Your task to perform on an android device: turn off smart reply in the gmail app Image 0: 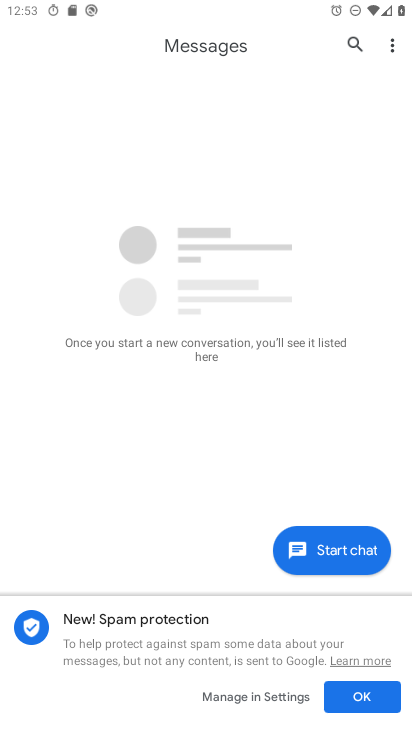
Step 0: press home button
Your task to perform on an android device: turn off smart reply in the gmail app Image 1: 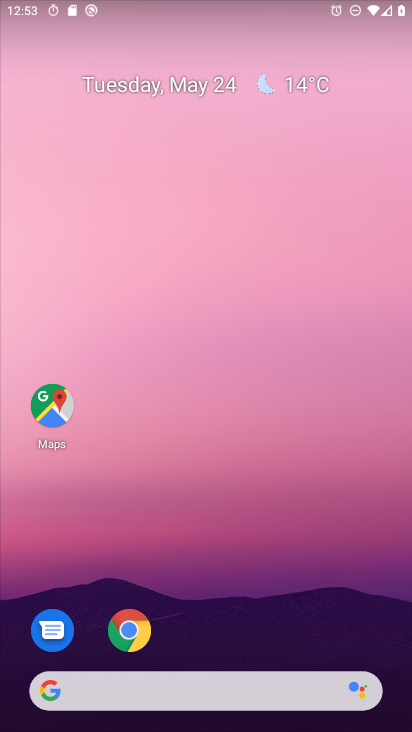
Step 1: drag from (310, 598) to (307, 102)
Your task to perform on an android device: turn off smart reply in the gmail app Image 2: 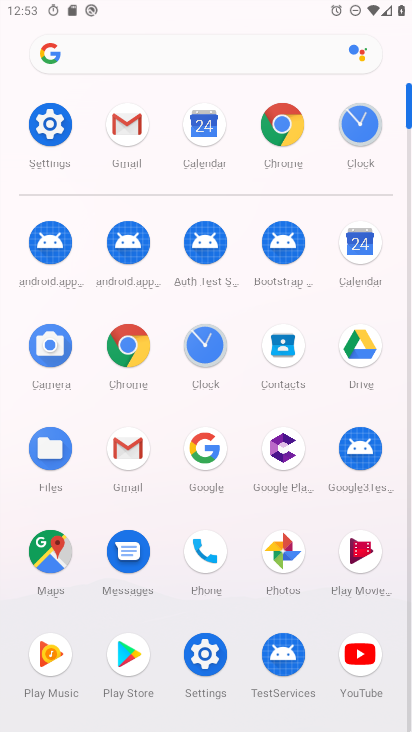
Step 2: click (129, 454)
Your task to perform on an android device: turn off smart reply in the gmail app Image 3: 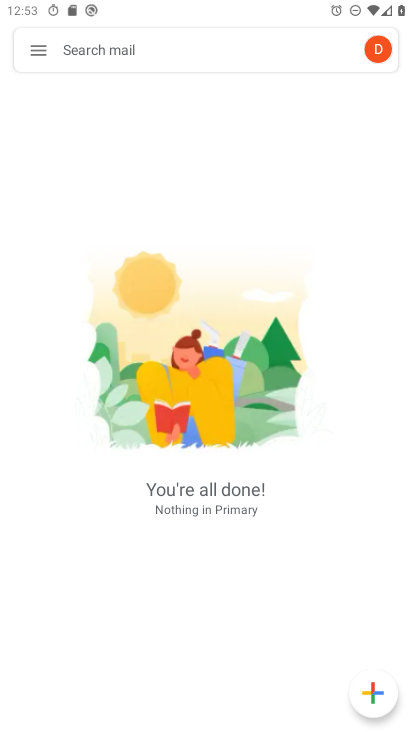
Step 3: click (31, 57)
Your task to perform on an android device: turn off smart reply in the gmail app Image 4: 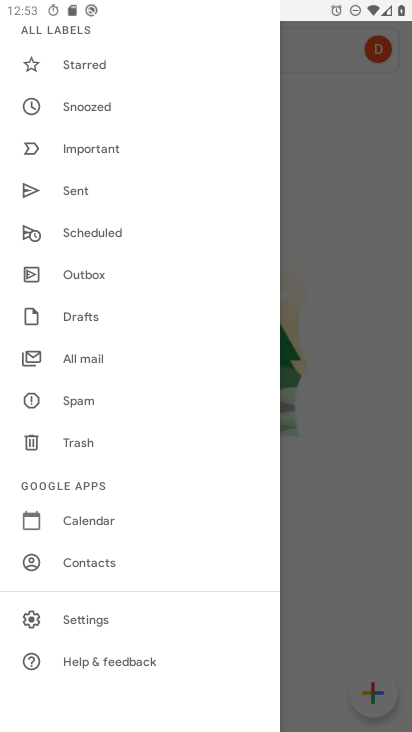
Step 4: drag from (142, 642) to (166, 268)
Your task to perform on an android device: turn off smart reply in the gmail app Image 5: 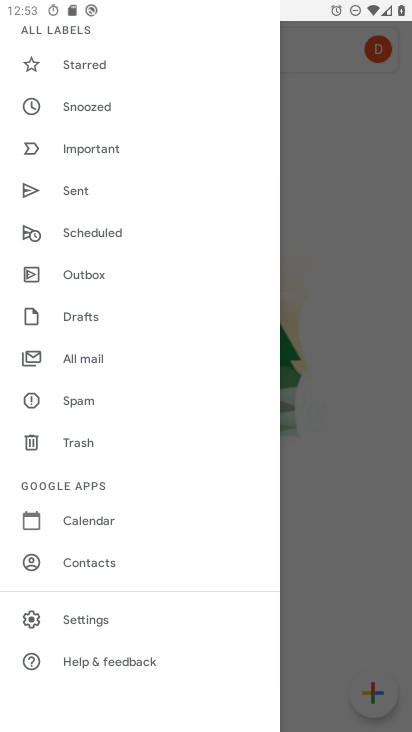
Step 5: click (105, 610)
Your task to perform on an android device: turn off smart reply in the gmail app Image 6: 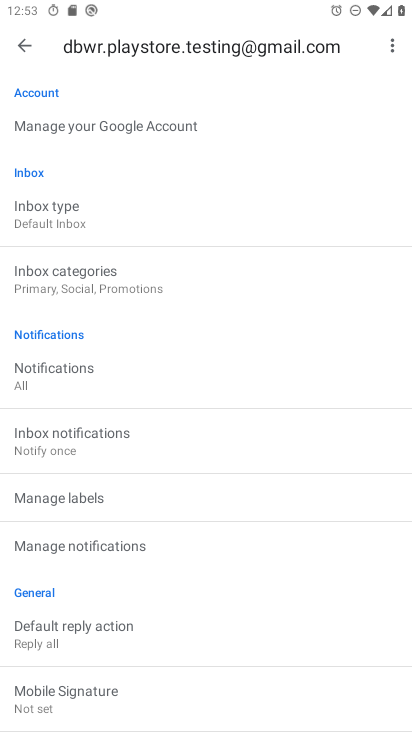
Step 6: task complete